Your task to perform on an android device: Open Youtube and go to the subscriptions tab Image 0: 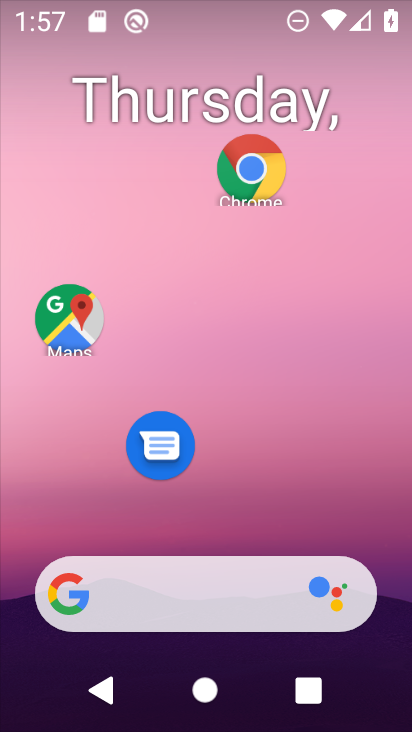
Step 0: drag from (230, 626) to (396, 101)
Your task to perform on an android device: Open Youtube and go to the subscriptions tab Image 1: 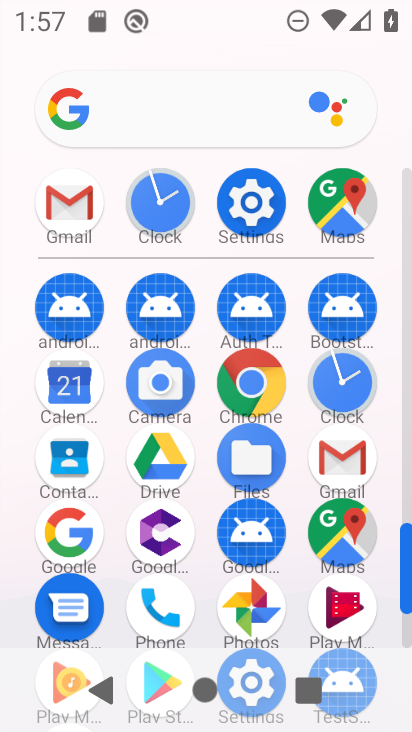
Step 1: drag from (206, 574) to (229, 426)
Your task to perform on an android device: Open Youtube and go to the subscriptions tab Image 2: 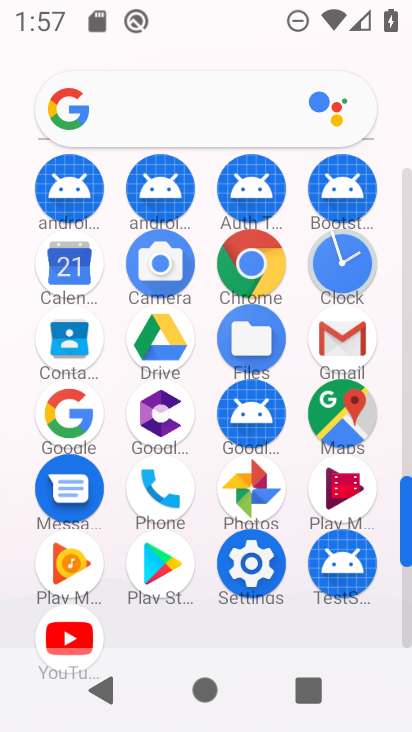
Step 2: click (69, 626)
Your task to perform on an android device: Open Youtube and go to the subscriptions tab Image 3: 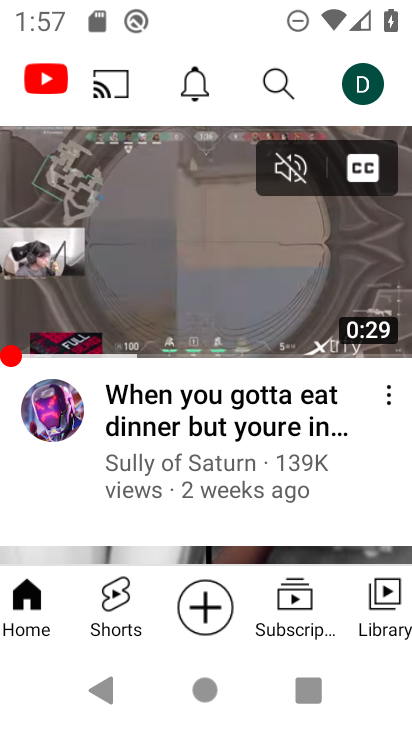
Step 3: click (299, 605)
Your task to perform on an android device: Open Youtube and go to the subscriptions tab Image 4: 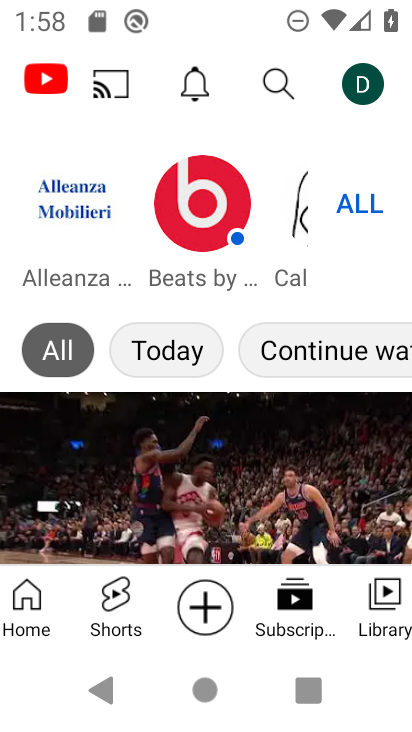
Step 4: task complete